Your task to perform on an android device: change the clock display to show seconds Image 0: 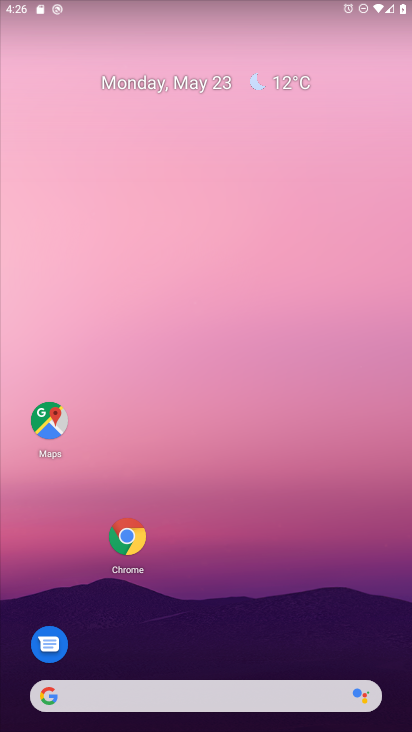
Step 0: drag from (290, 527) to (304, 77)
Your task to perform on an android device: change the clock display to show seconds Image 1: 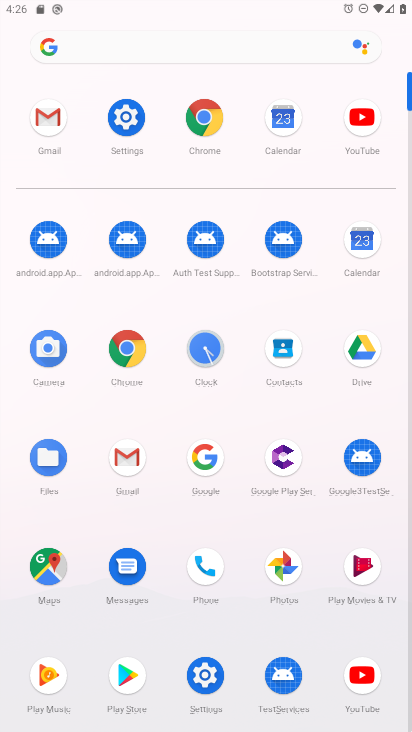
Step 1: click (212, 346)
Your task to perform on an android device: change the clock display to show seconds Image 2: 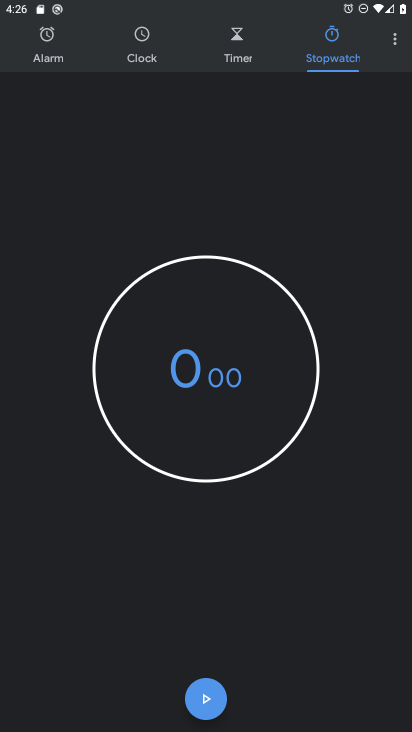
Step 2: click (398, 41)
Your task to perform on an android device: change the clock display to show seconds Image 3: 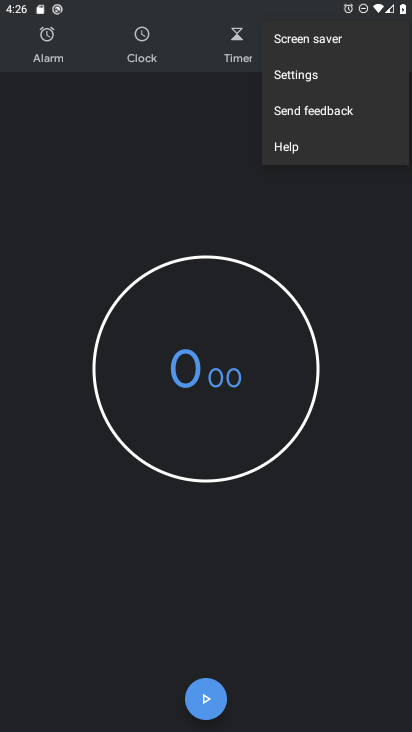
Step 3: click (296, 82)
Your task to perform on an android device: change the clock display to show seconds Image 4: 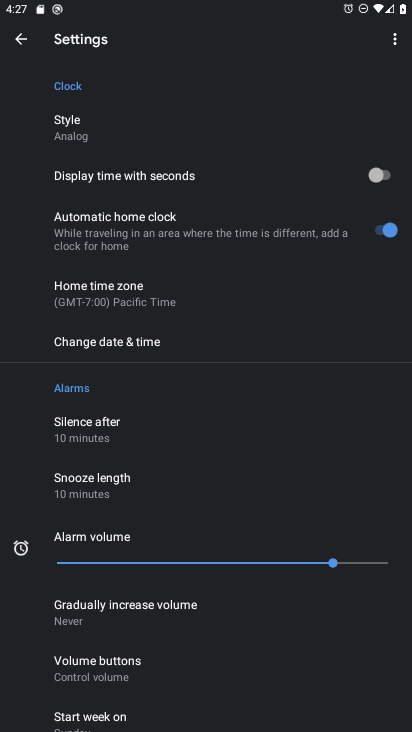
Step 4: click (348, 173)
Your task to perform on an android device: change the clock display to show seconds Image 5: 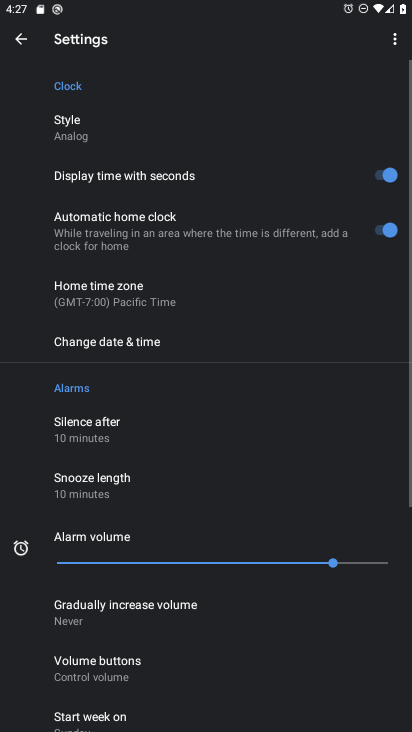
Step 5: task complete